Your task to perform on an android device: Open sound settings Image 0: 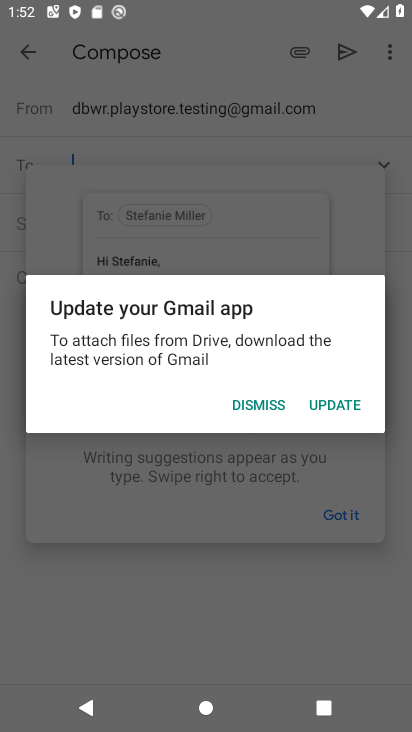
Step 0: press home button
Your task to perform on an android device: Open sound settings Image 1: 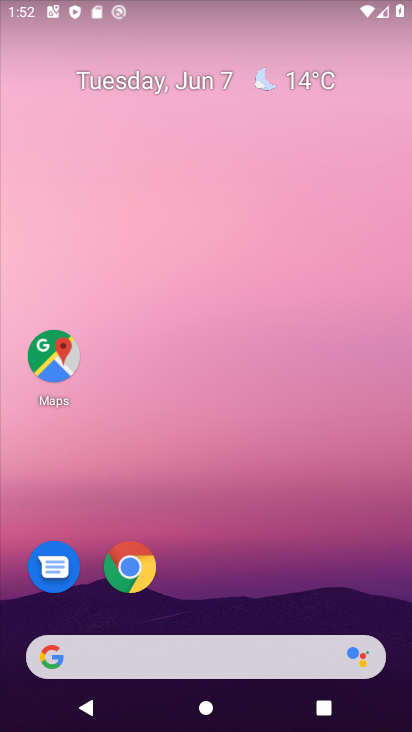
Step 1: drag from (266, 530) to (269, 7)
Your task to perform on an android device: Open sound settings Image 2: 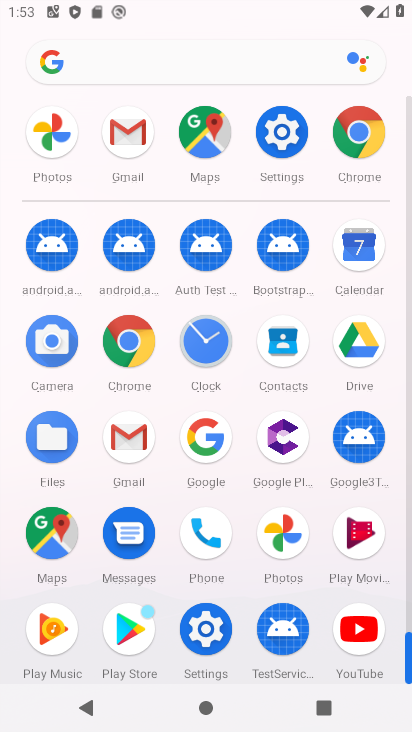
Step 2: click (285, 150)
Your task to perform on an android device: Open sound settings Image 3: 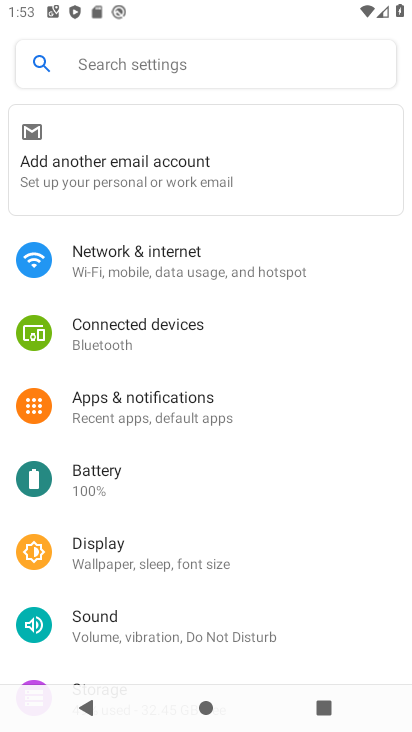
Step 3: click (120, 632)
Your task to perform on an android device: Open sound settings Image 4: 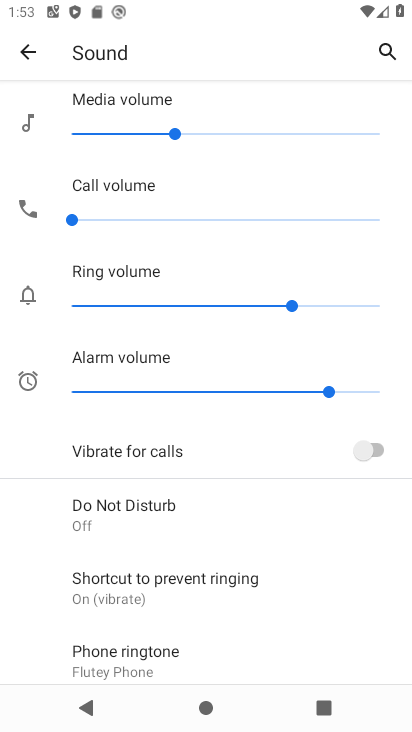
Step 4: task complete